Your task to perform on an android device: turn on showing notifications on the lock screen Image 0: 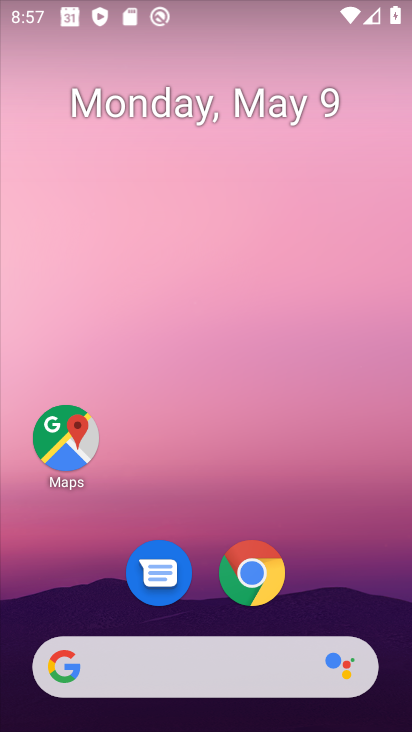
Step 0: drag from (333, 620) to (228, 196)
Your task to perform on an android device: turn on showing notifications on the lock screen Image 1: 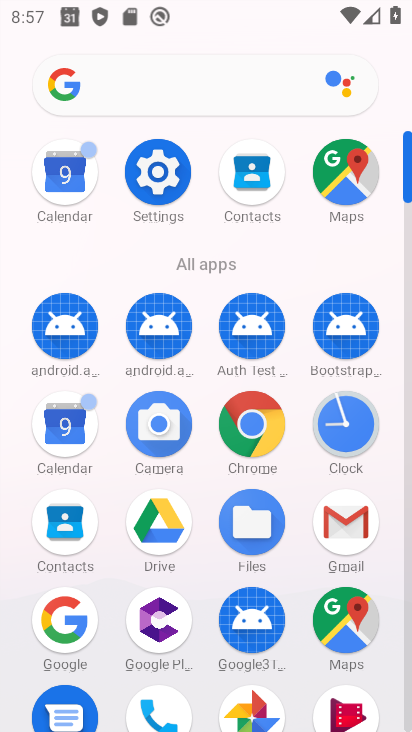
Step 1: click (151, 190)
Your task to perform on an android device: turn on showing notifications on the lock screen Image 2: 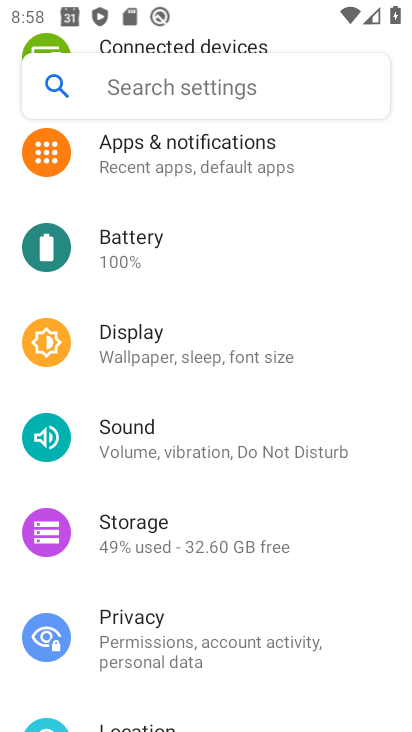
Step 2: click (207, 169)
Your task to perform on an android device: turn on showing notifications on the lock screen Image 3: 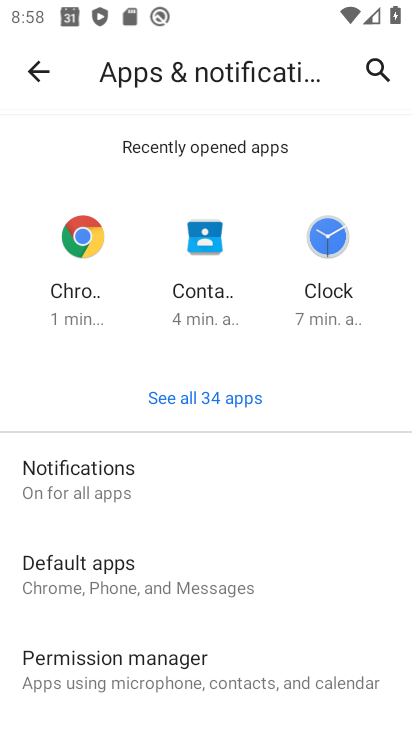
Step 3: click (161, 490)
Your task to perform on an android device: turn on showing notifications on the lock screen Image 4: 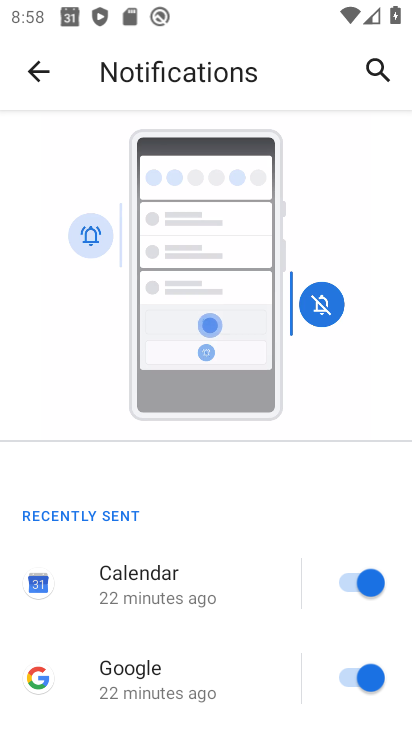
Step 4: drag from (136, 609) to (127, 202)
Your task to perform on an android device: turn on showing notifications on the lock screen Image 5: 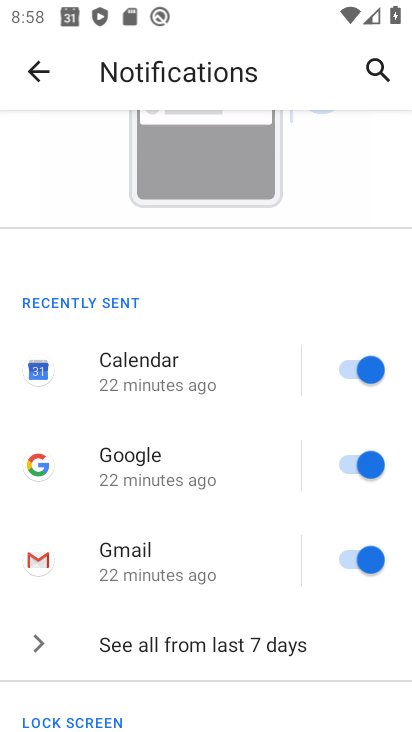
Step 5: drag from (151, 679) to (153, 438)
Your task to perform on an android device: turn on showing notifications on the lock screen Image 6: 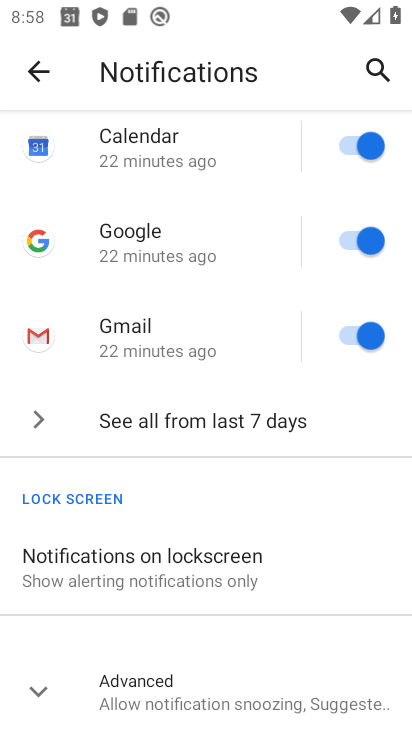
Step 6: click (152, 574)
Your task to perform on an android device: turn on showing notifications on the lock screen Image 7: 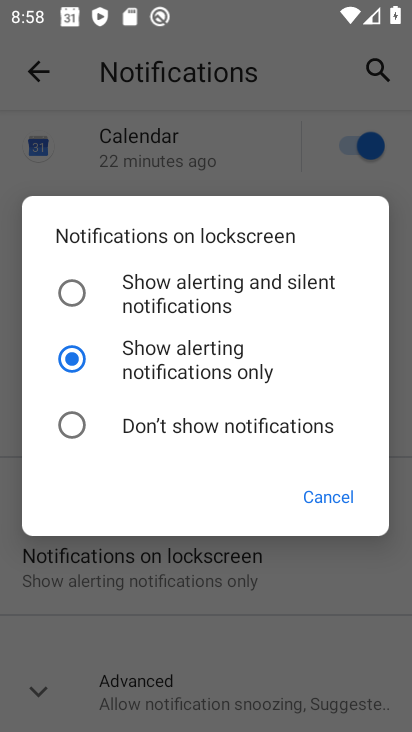
Step 7: click (170, 305)
Your task to perform on an android device: turn on showing notifications on the lock screen Image 8: 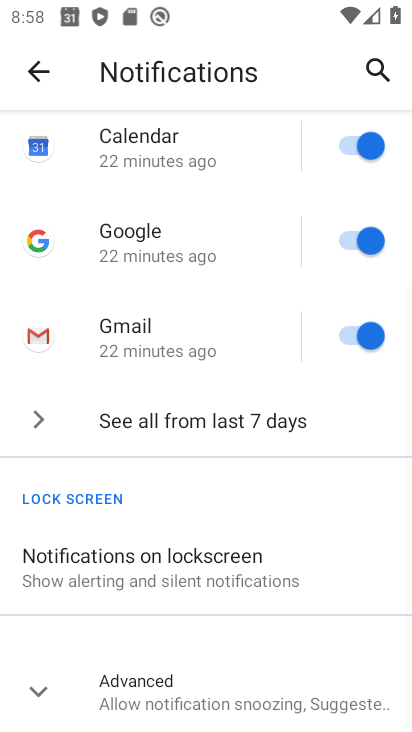
Step 8: task complete